Your task to perform on an android device: see tabs open on other devices in the chrome app Image 0: 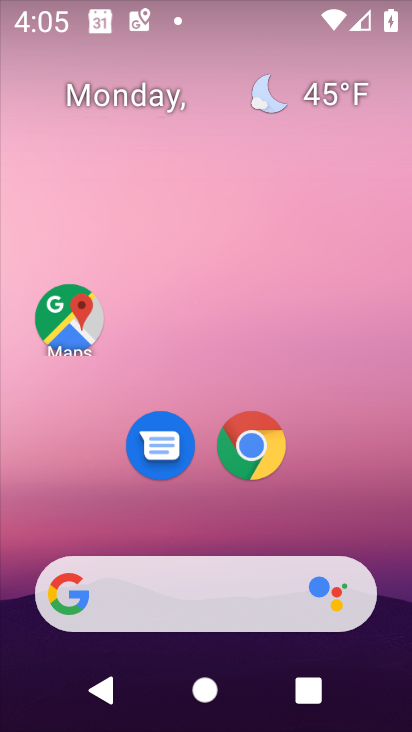
Step 0: click (253, 449)
Your task to perform on an android device: see tabs open on other devices in the chrome app Image 1: 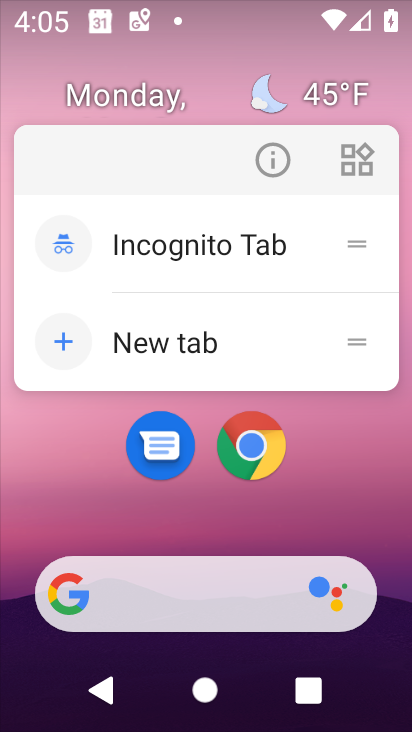
Step 1: click (257, 449)
Your task to perform on an android device: see tabs open on other devices in the chrome app Image 2: 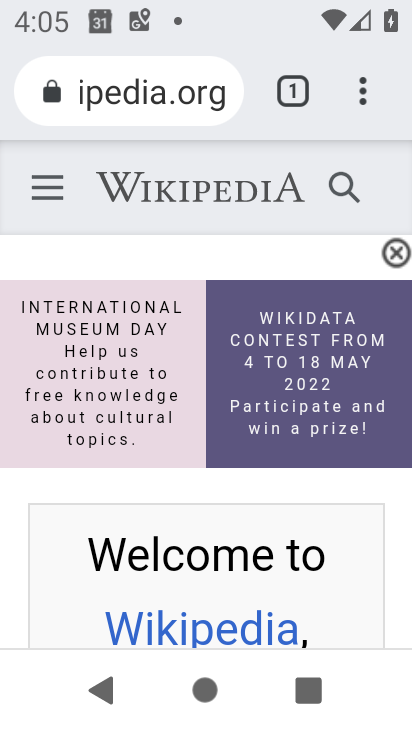
Step 2: click (376, 97)
Your task to perform on an android device: see tabs open on other devices in the chrome app Image 3: 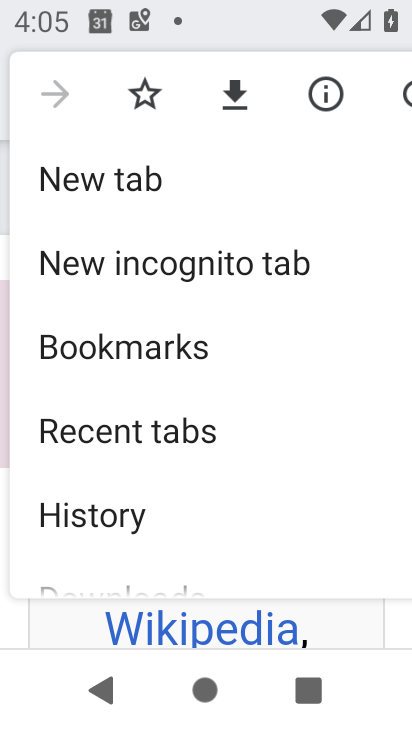
Step 3: click (176, 444)
Your task to perform on an android device: see tabs open on other devices in the chrome app Image 4: 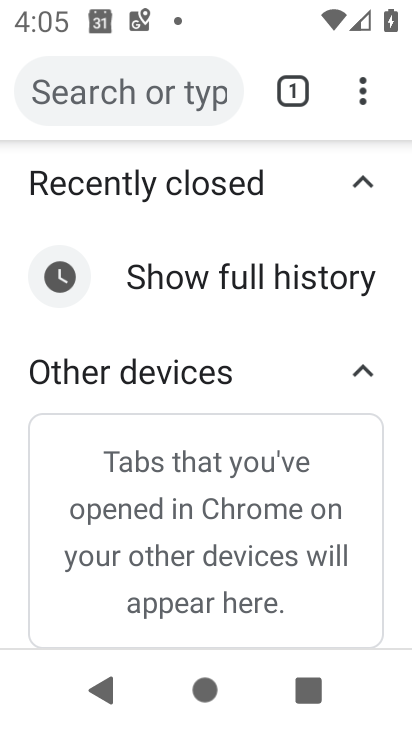
Step 4: task complete